Your task to perform on an android device: Go to battery settings Image 0: 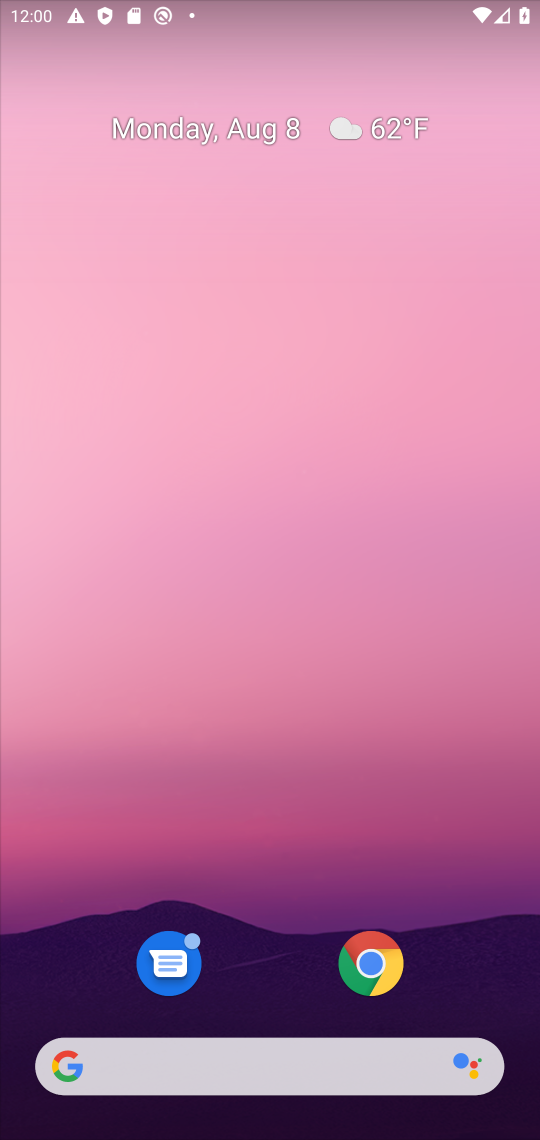
Step 0: drag from (484, 979) to (232, 18)
Your task to perform on an android device: Go to battery settings Image 1: 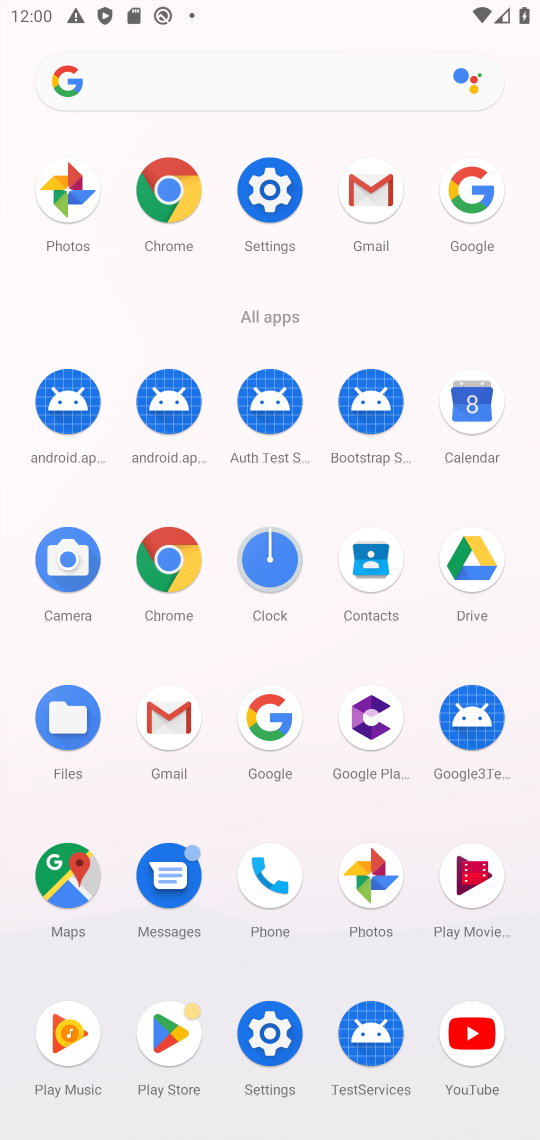
Step 1: click (273, 1014)
Your task to perform on an android device: Go to battery settings Image 2: 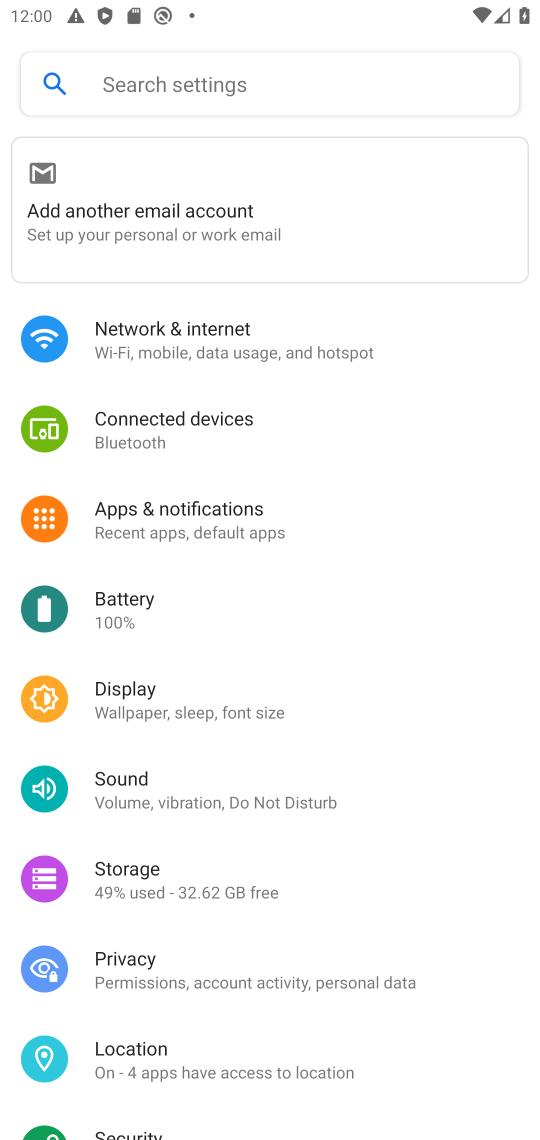
Step 2: click (139, 636)
Your task to perform on an android device: Go to battery settings Image 3: 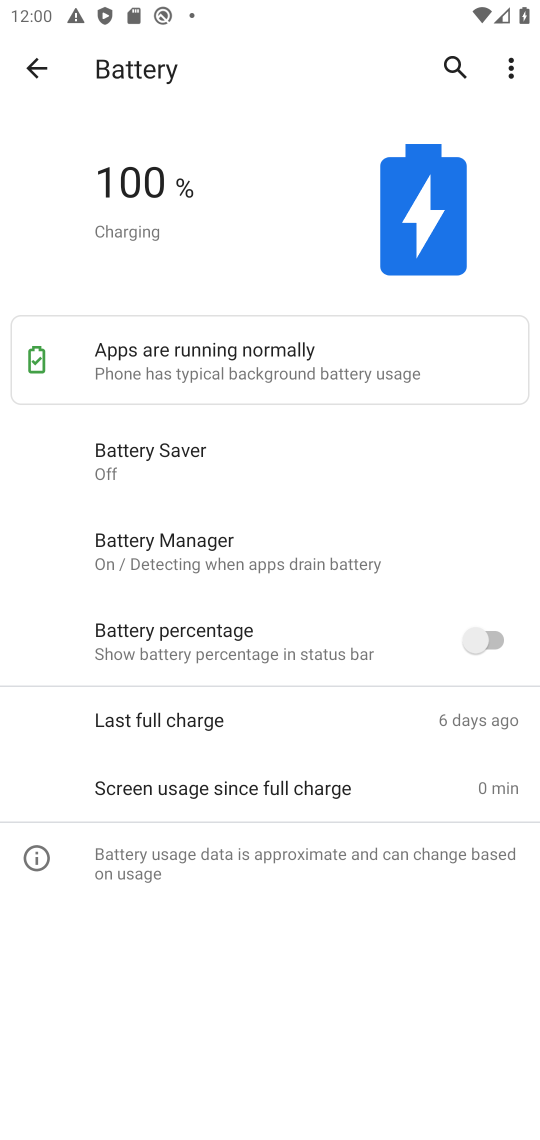
Step 3: task complete